Your task to perform on an android device: turn notification dots on Image 0: 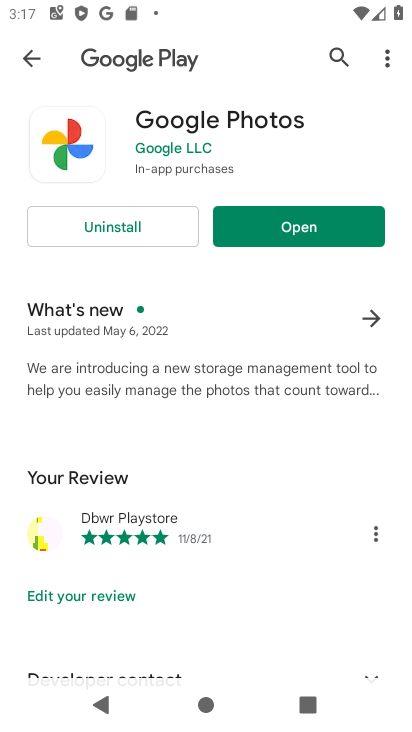
Step 0: press home button
Your task to perform on an android device: turn notification dots on Image 1: 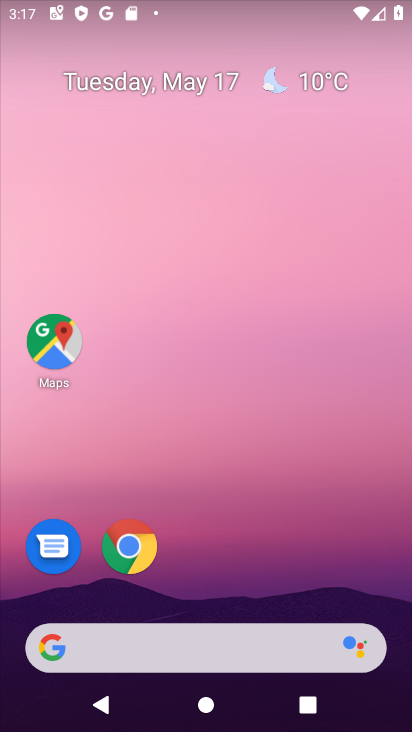
Step 1: drag from (245, 515) to (210, 80)
Your task to perform on an android device: turn notification dots on Image 2: 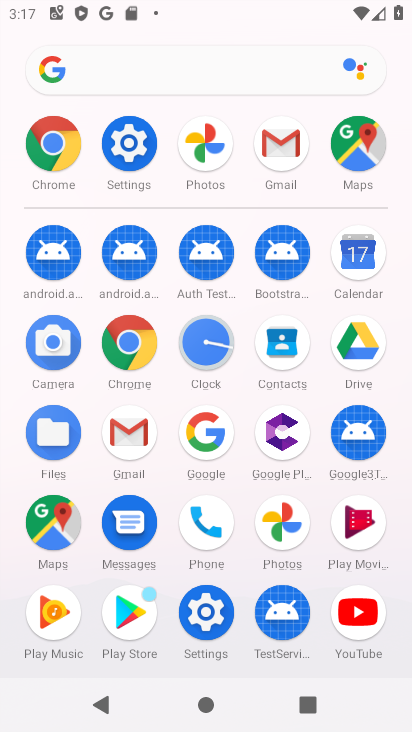
Step 2: click (123, 180)
Your task to perform on an android device: turn notification dots on Image 3: 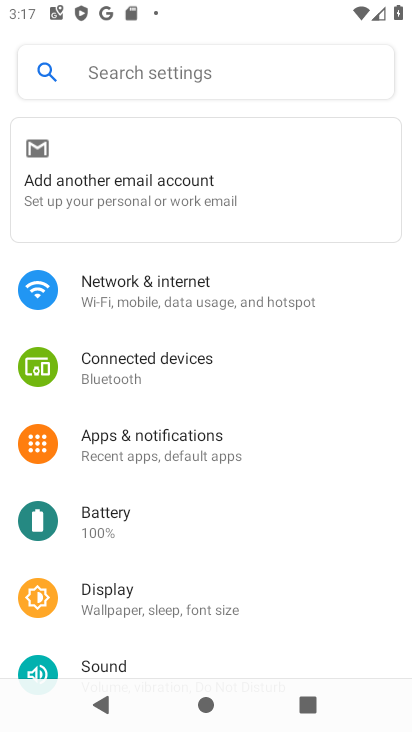
Step 3: click (164, 454)
Your task to perform on an android device: turn notification dots on Image 4: 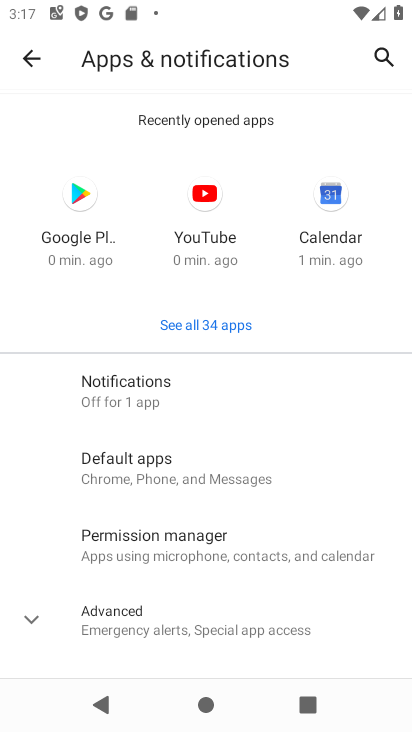
Step 4: click (123, 376)
Your task to perform on an android device: turn notification dots on Image 5: 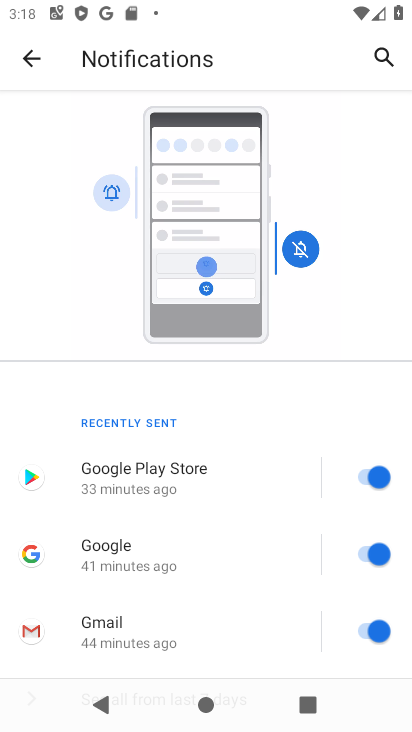
Step 5: drag from (164, 634) to (200, 206)
Your task to perform on an android device: turn notification dots on Image 6: 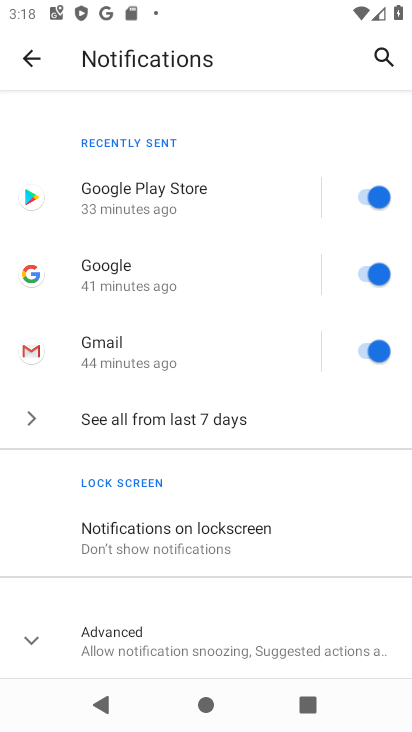
Step 6: click (128, 647)
Your task to perform on an android device: turn notification dots on Image 7: 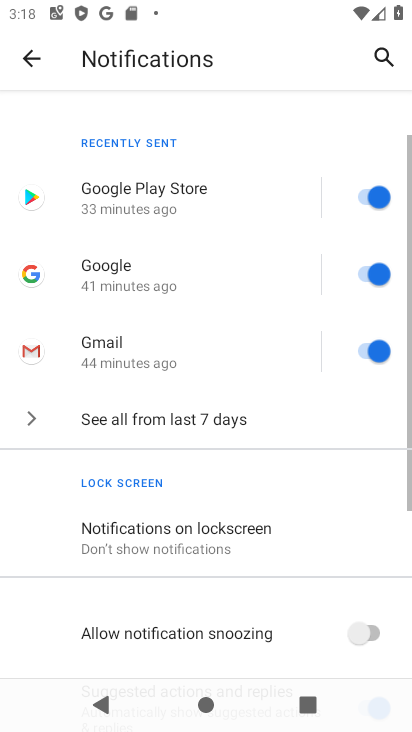
Step 7: task complete